Your task to perform on an android device: Open calendar and show me the first week of next month Image 0: 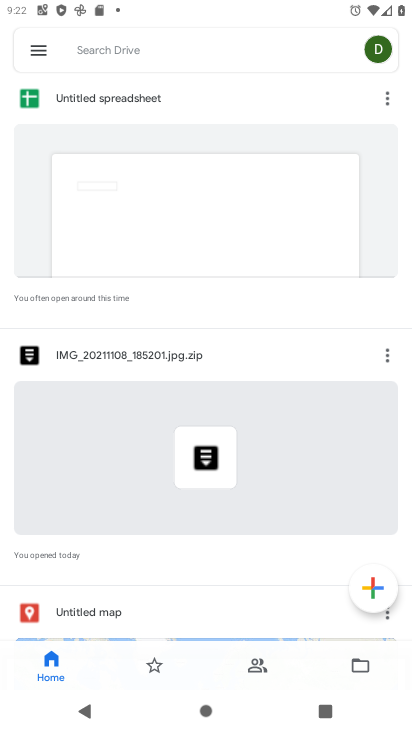
Step 0: press home button
Your task to perform on an android device: Open calendar and show me the first week of next month Image 1: 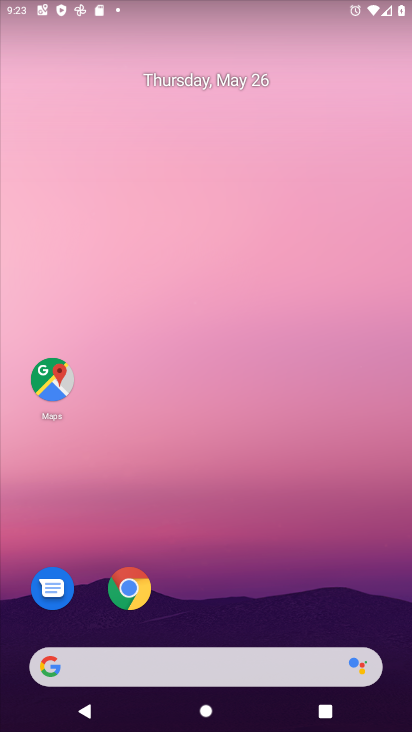
Step 1: drag from (369, 444) to (238, 106)
Your task to perform on an android device: Open calendar and show me the first week of next month Image 2: 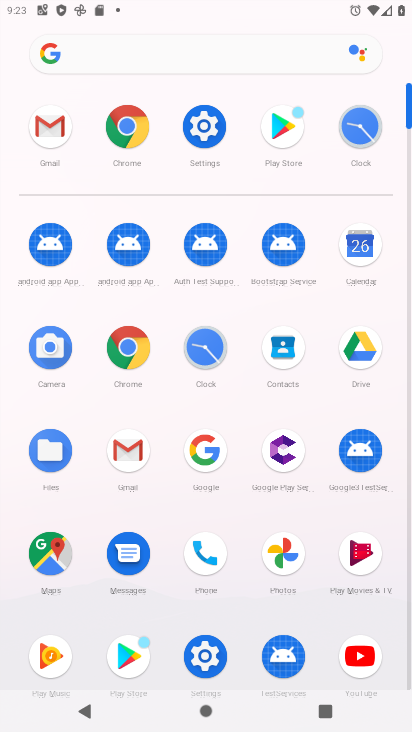
Step 2: click (367, 265)
Your task to perform on an android device: Open calendar and show me the first week of next month Image 3: 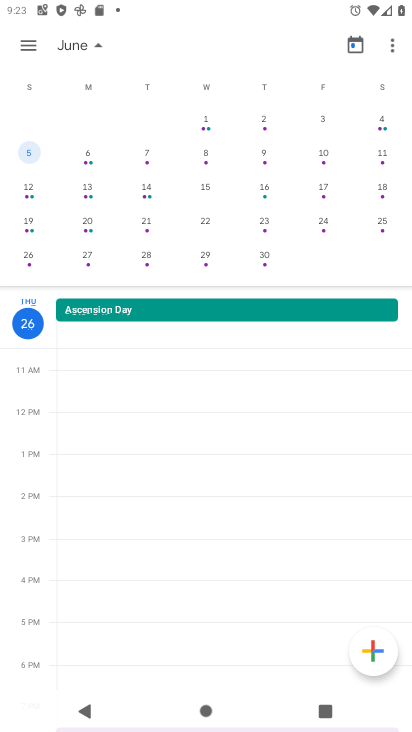
Step 3: drag from (359, 218) to (3, 222)
Your task to perform on an android device: Open calendar and show me the first week of next month Image 4: 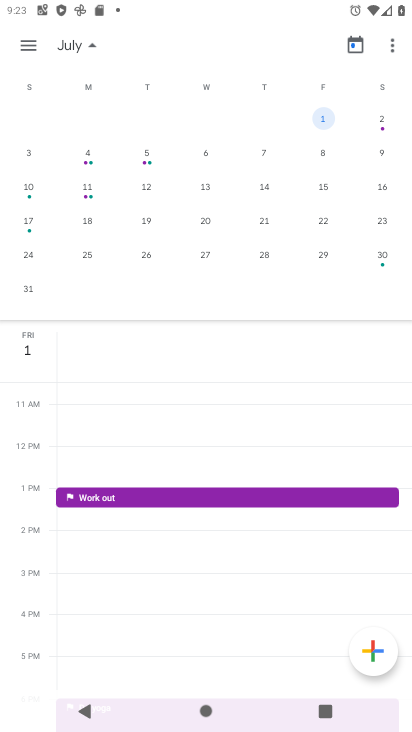
Step 4: click (83, 158)
Your task to perform on an android device: Open calendar and show me the first week of next month Image 5: 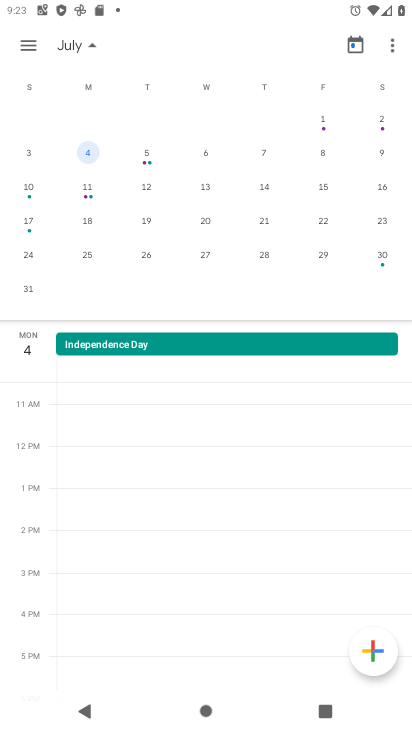
Step 5: task complete